Your task to perform on an android device: Go to calendar. Show me events next week Image 0: 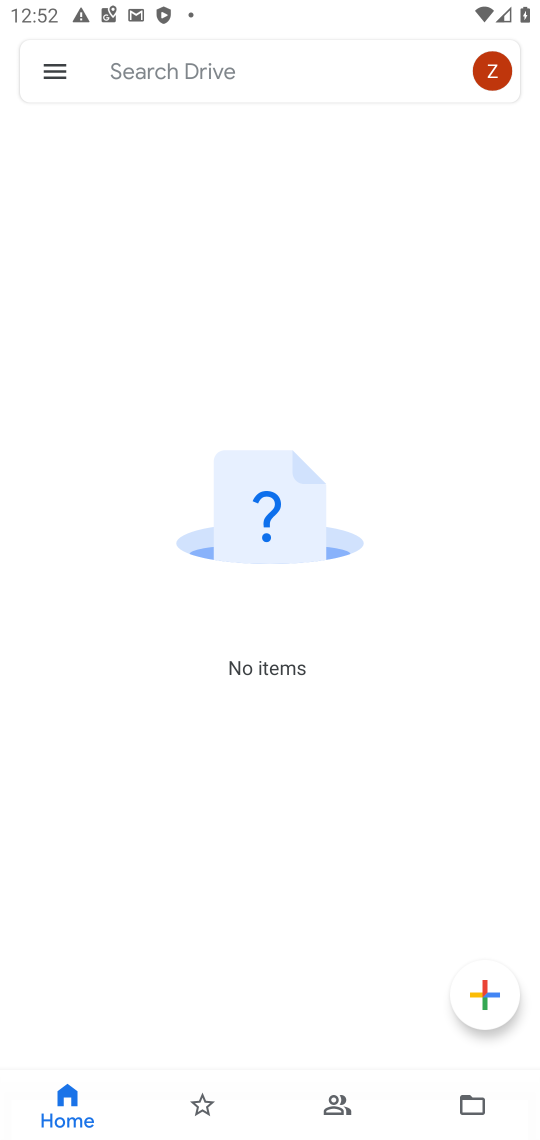
Step 0: press home button
Your task to perform on an android device: Go to calendar. Show me events next week Image 1: 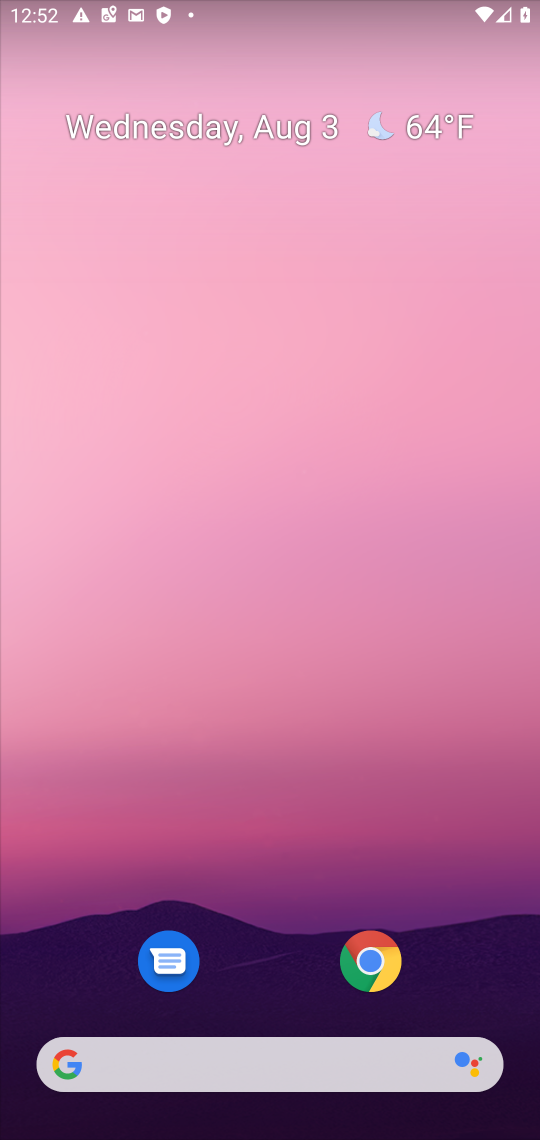
Step 1: drag from (262, 879) to (251, 61)
Your task to perform on an android device: Go to calendar. Show me events next week Image 2: 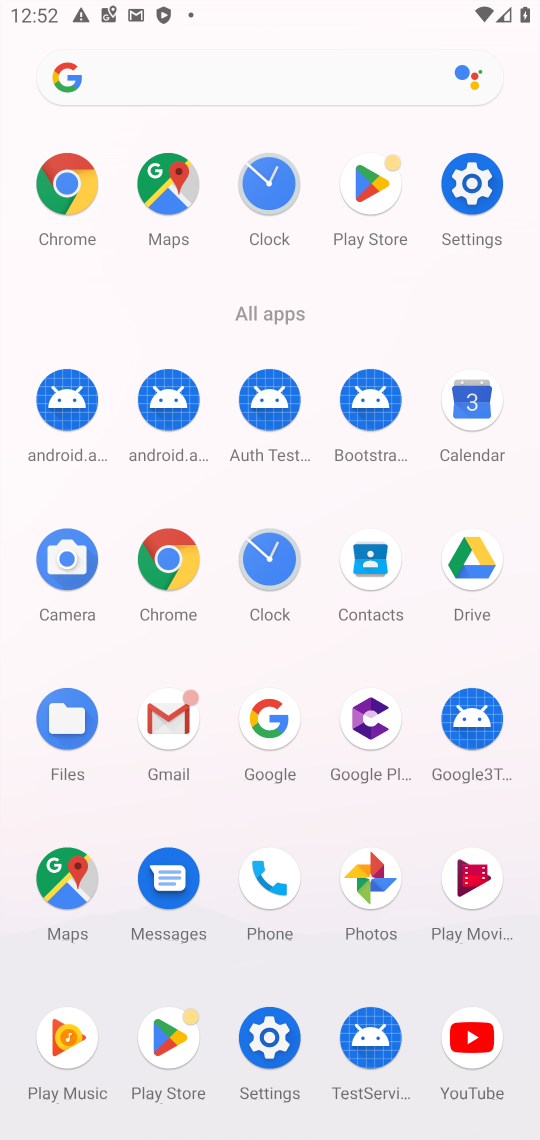
Step 2: click (475, 402)
Your task to perform on an android device: Go to calendar. Show me events next week Image 3: 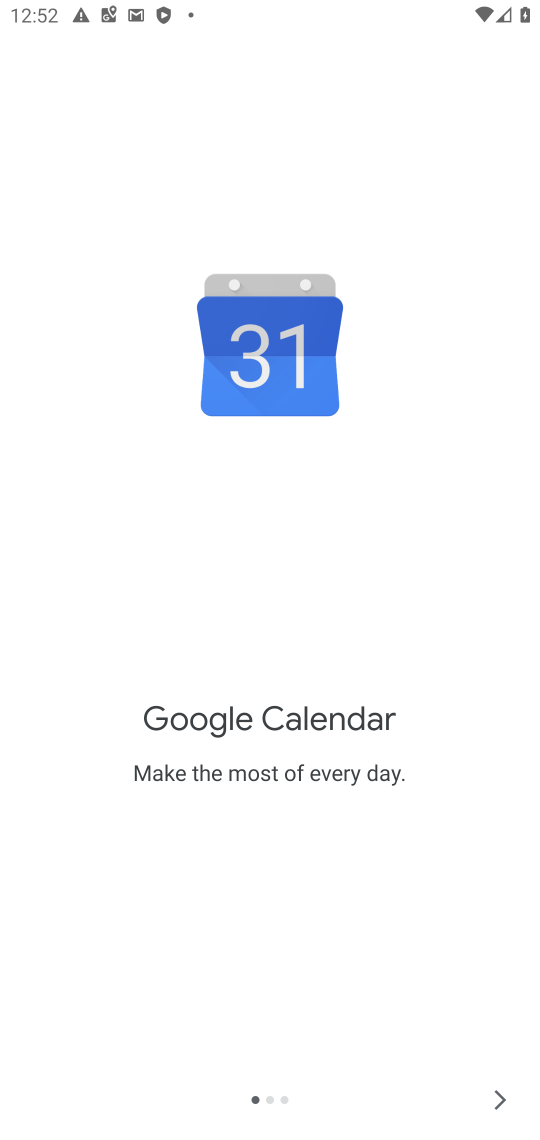
Step 3: click (507, 1101)
Your task to perform on an android device: Go to calendar. Show me events next week Image 4: 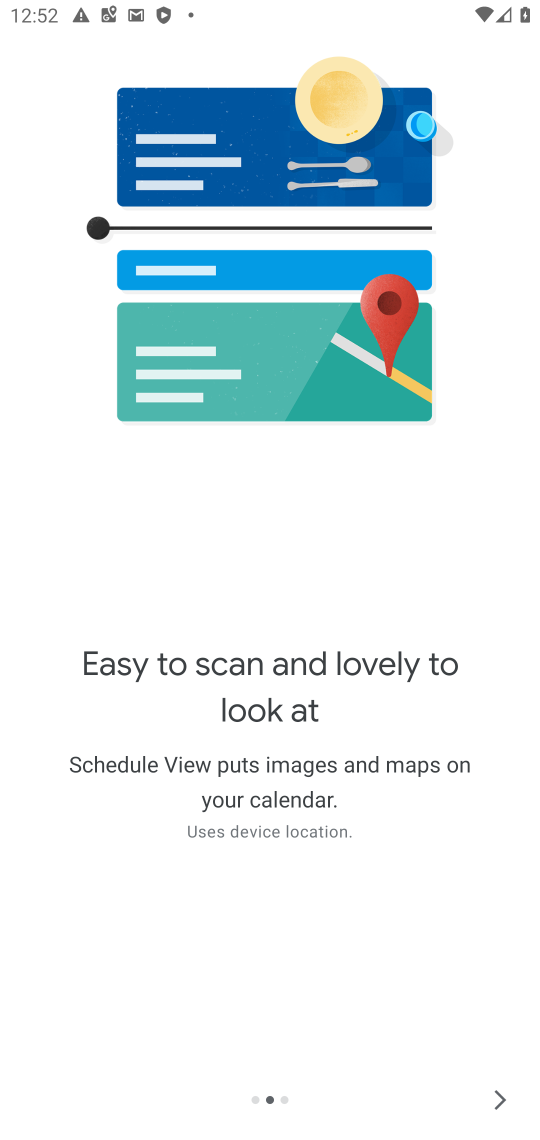
Step 4: click (507, 1101)
Your task to perform on an android device: Go to calendar. Show me events next week Image 5: 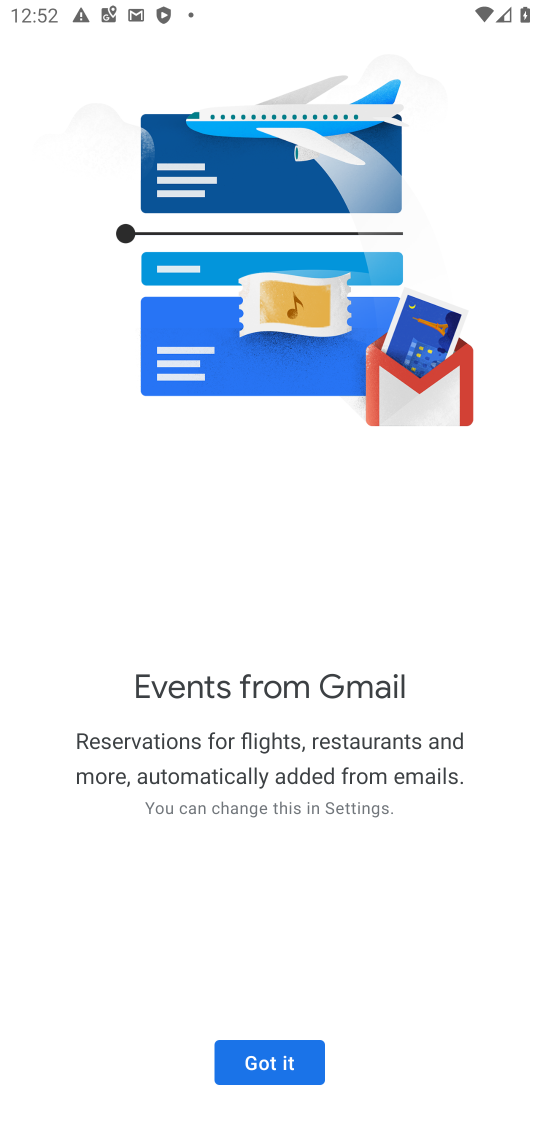
Step 5: click (283, 1057)
Your task to perform on an android device: Go to calendar. Show me events next week Image 6: 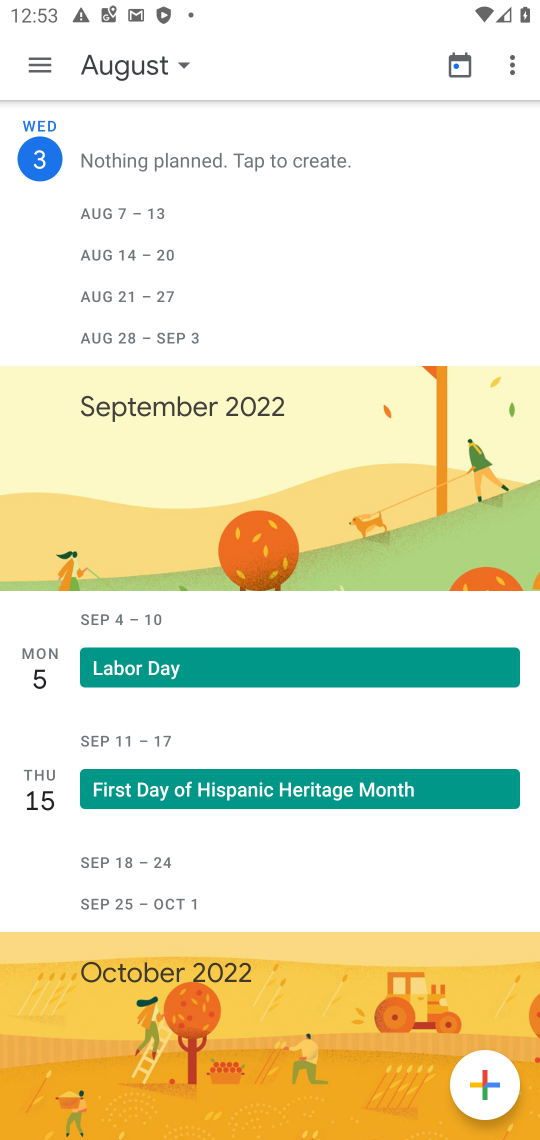
Step 6: click (42, 69)
Your task to perform on an android device: Go to calendar. Show me events next week Image 7: 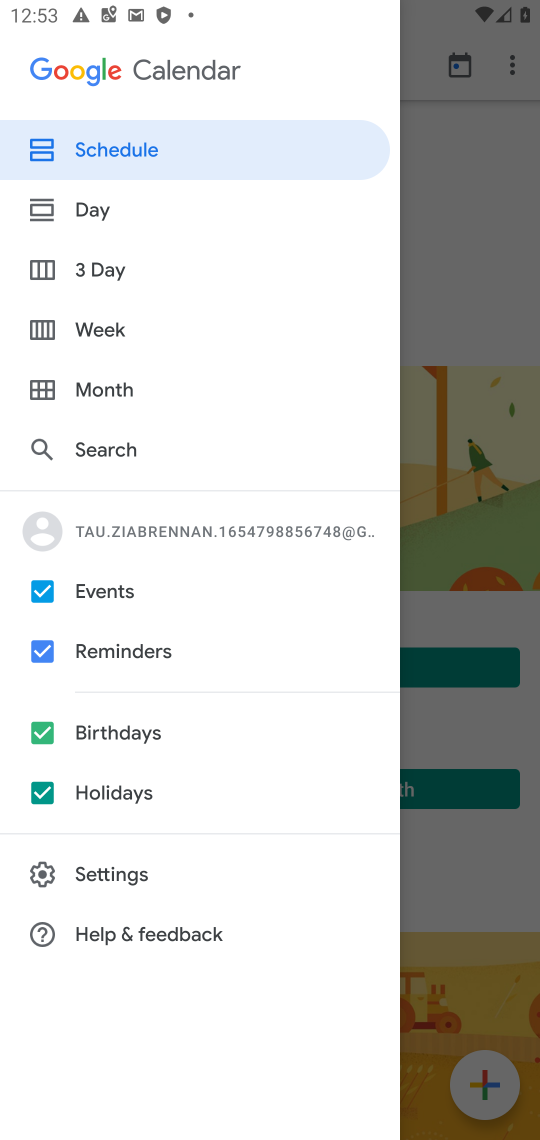
Step 7: click (58, 330)
Your task to perform on an android device: Go to calendar. Show me events next week Image 8: 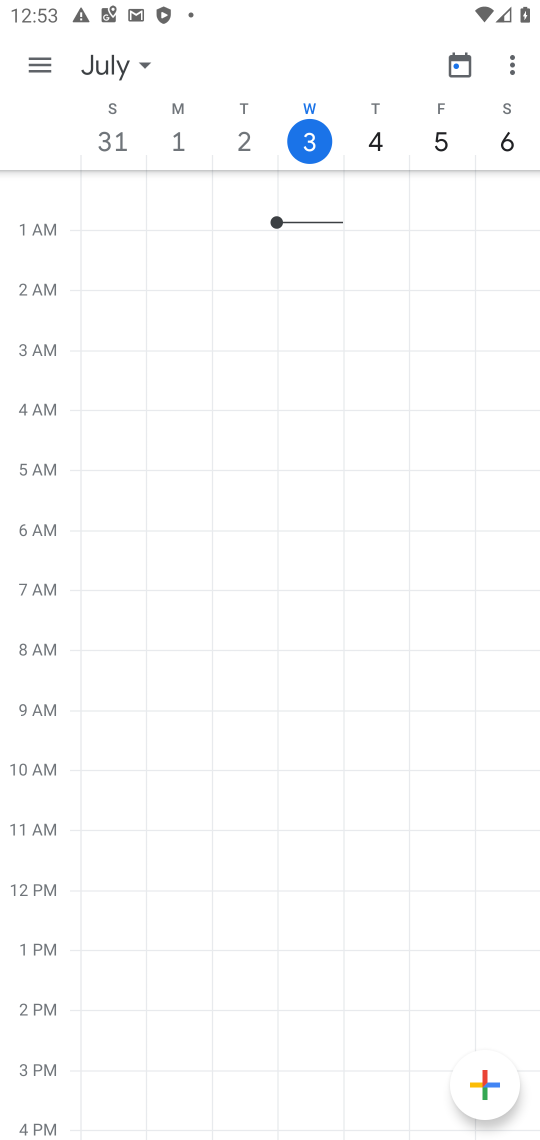
Step 8: click (31, 66)
Your task to perform on an android device: Go to calendar. Show me events next week Image 9: 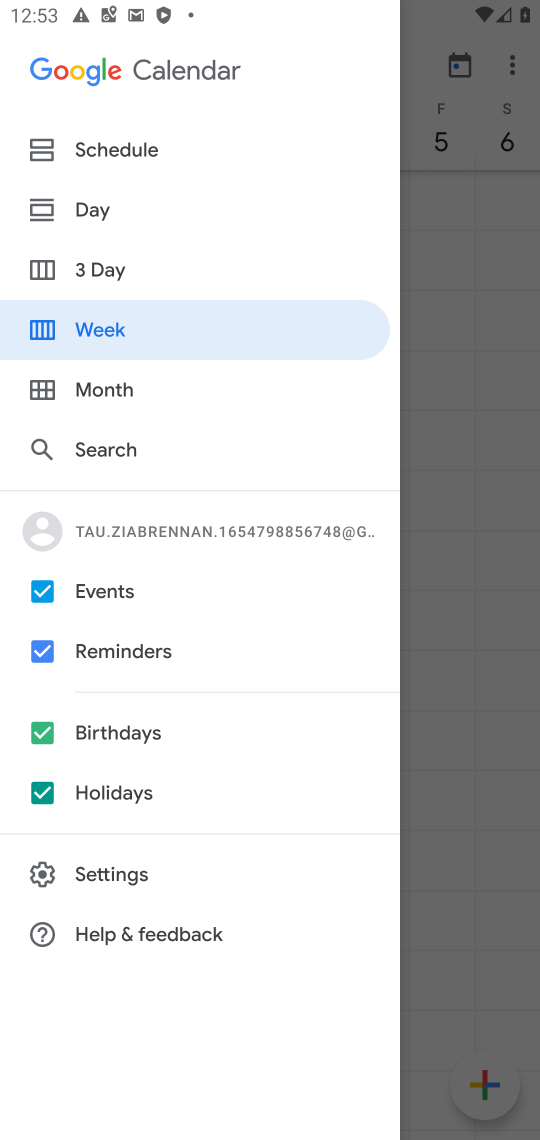
Step 9: click (40, 779)
Your task to perform on an android device: Go to calendar. Show me events next week Image 10: 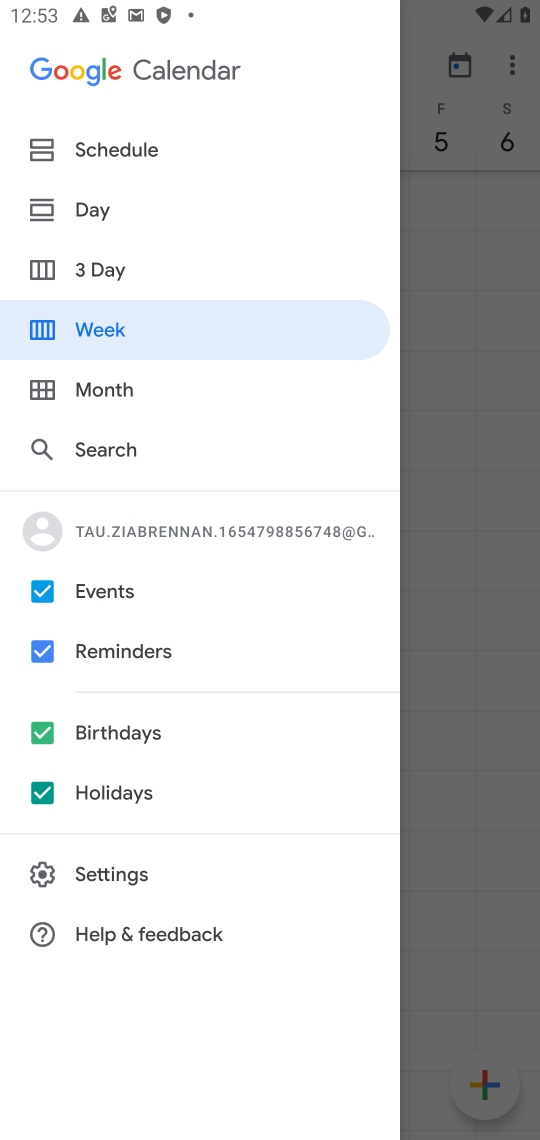
Step 10: click (46, 733)
Your task to perform on an android device: Go to calendar. Show me events next week Image 11: 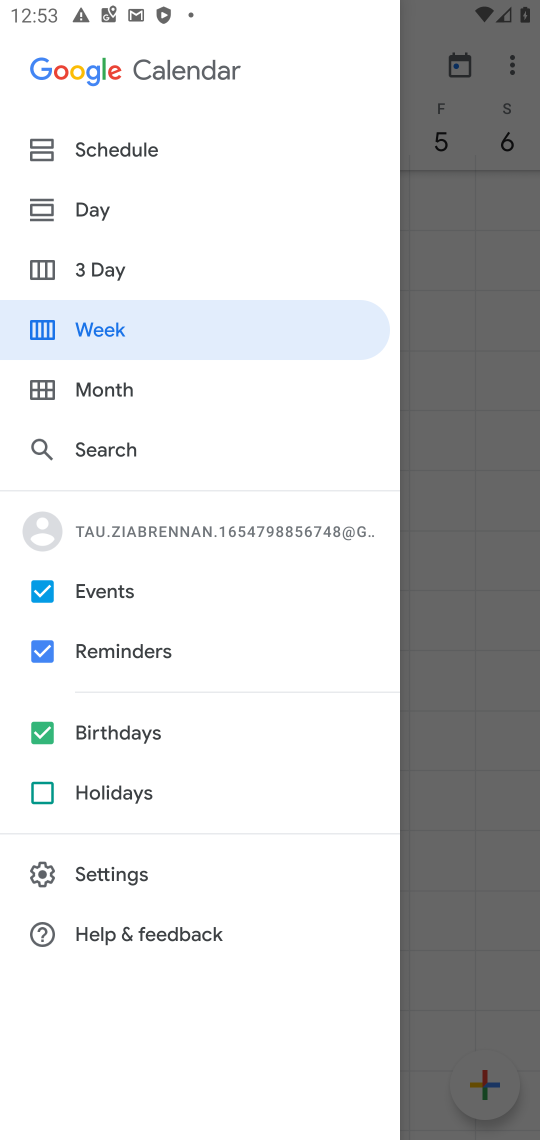
Step 11: click (51, 658)
Your task to perform on an android device: Go to calendar. Show me events next week Image 12: 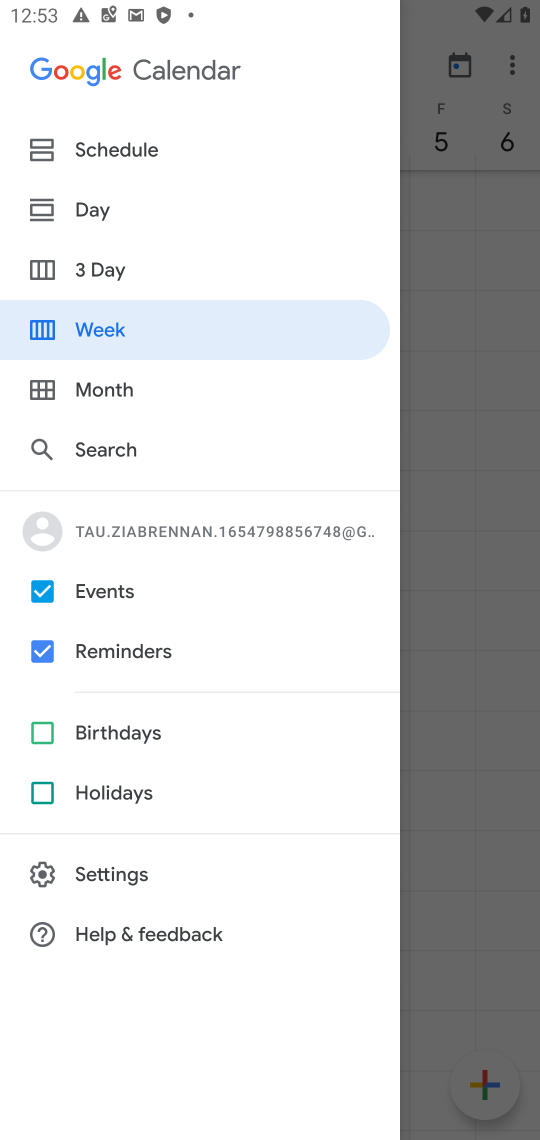
Step 12: click (51, 655)
Your task to perform on an android device: Go to calendar. Show me events next week Image 13: 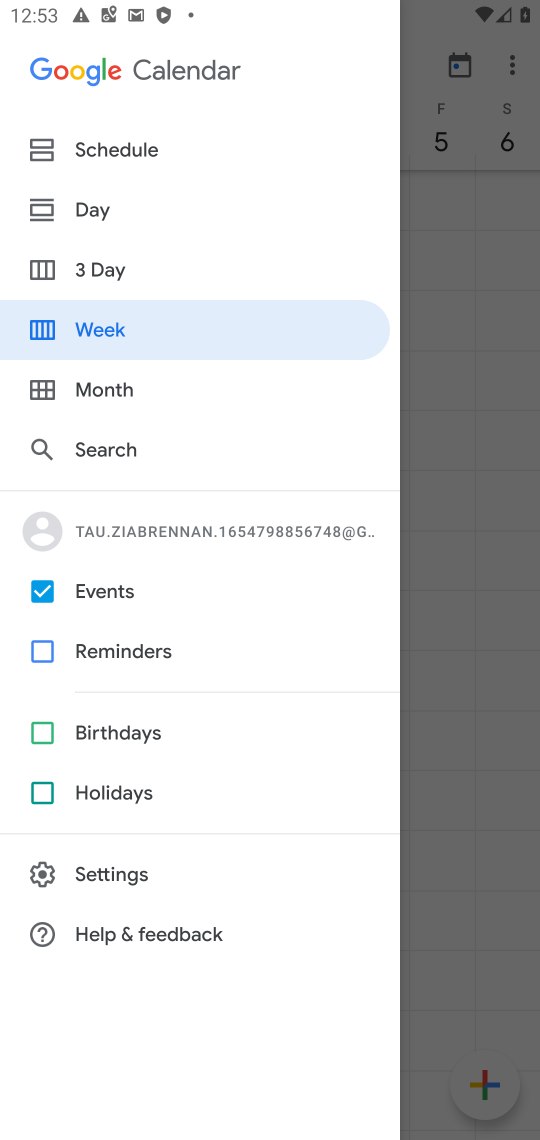
Step 13: click (114, 325)
Your task to perform on an android device: Go to calendar. Show me events next week Image 14: 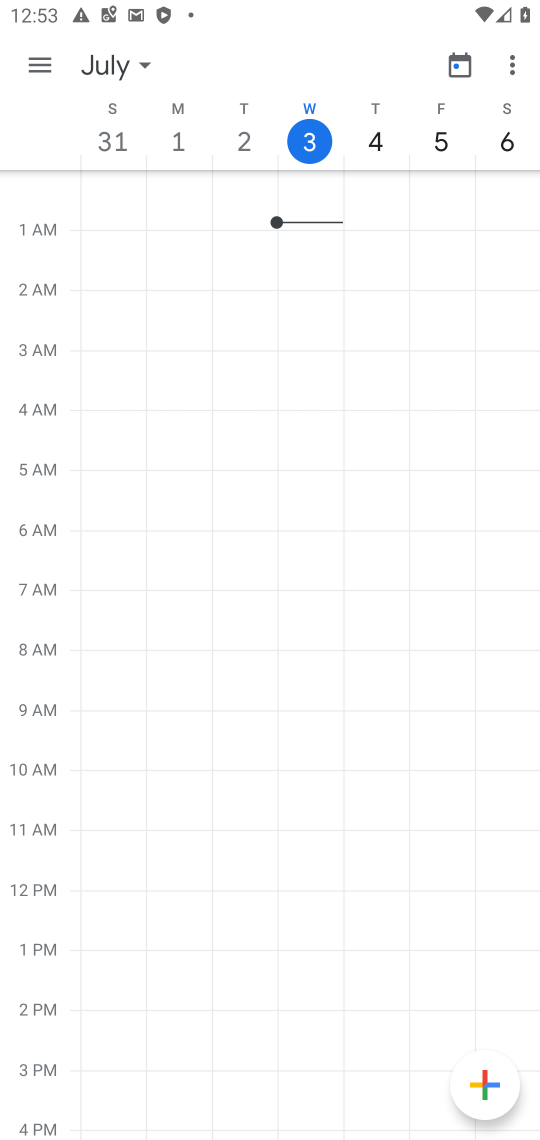
Step 14: task complete